Your task to perform on an android device: Turn off the flashlight Image 0: 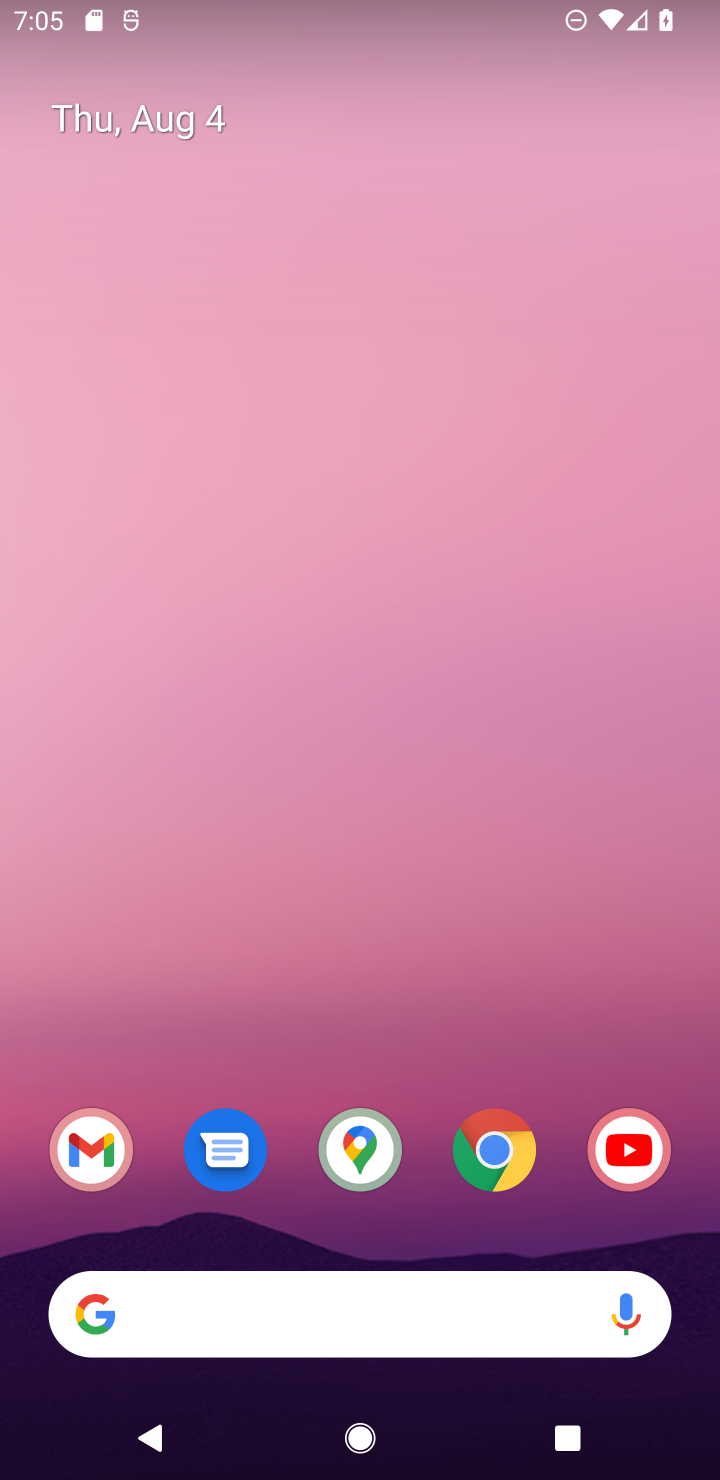
Step 0: drag from (315, 2) to (323, 1477)
Your task to perform on an android device: Turn off the flashlight Image 1: 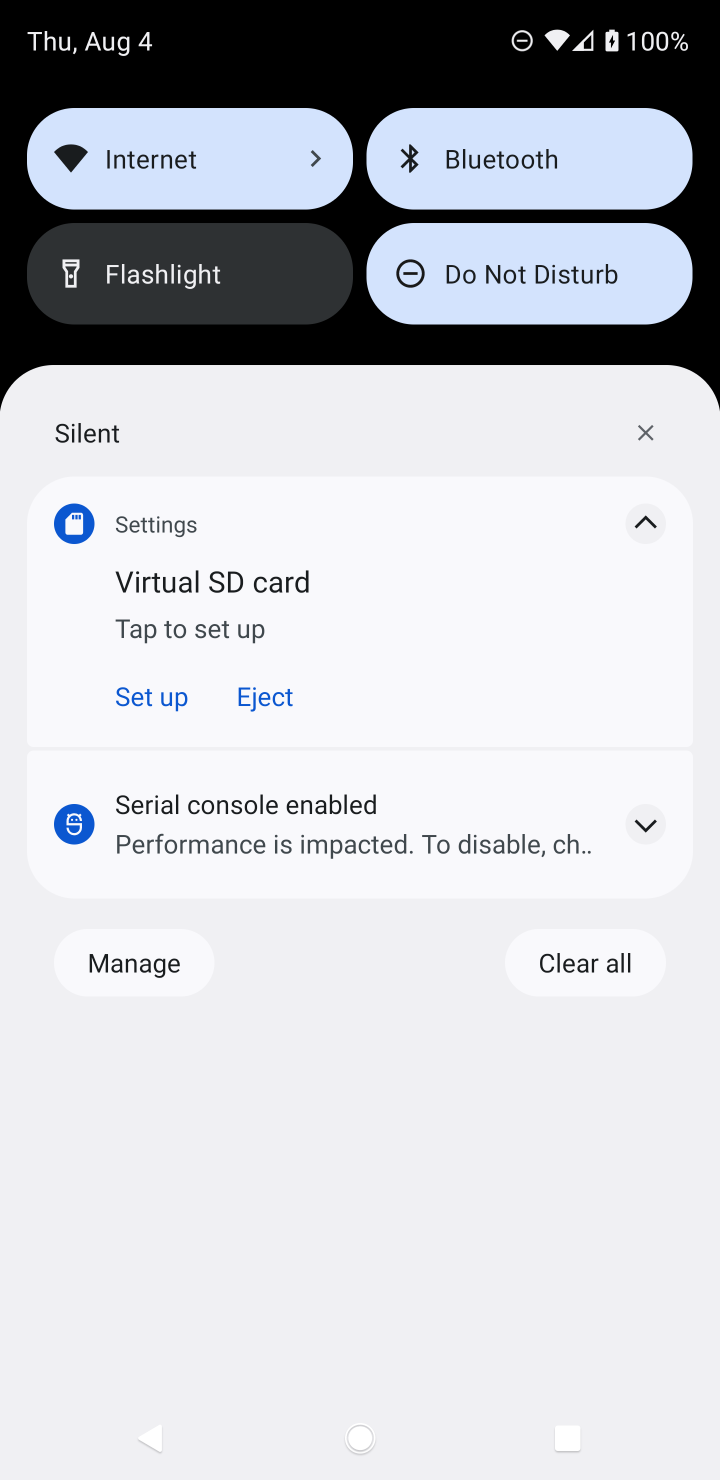
Step 1: click (188, 272)
Your task to perform on an android device: Turn off the flashlight Image 2: 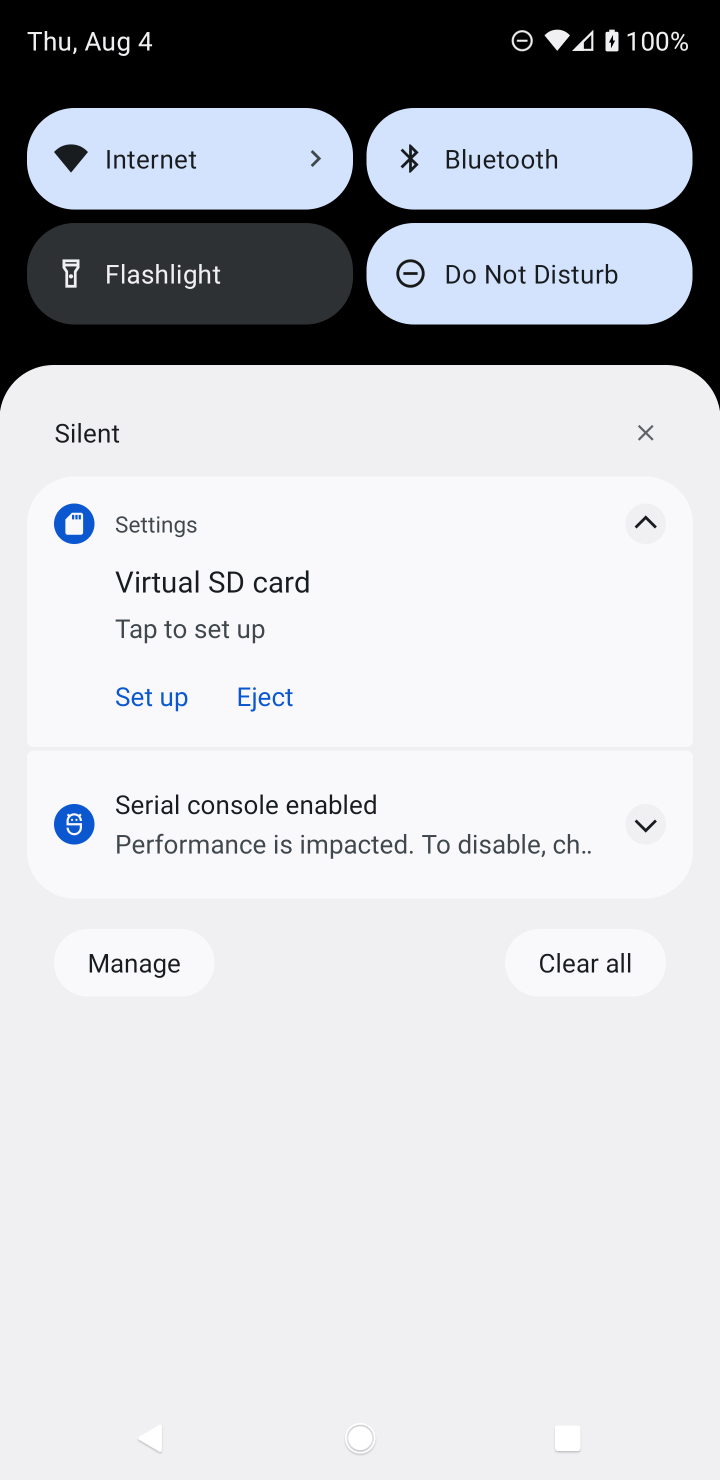
Step 2: task complete